Your task to perform on an android device: find snoozed emails in the gmail app Image 0: 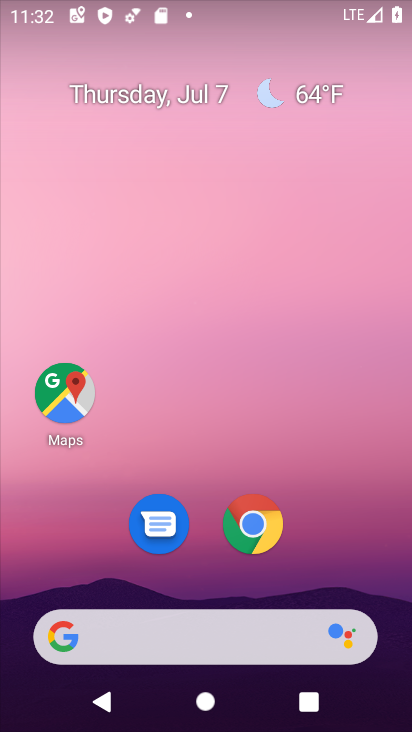
Step 0: drag from (207, 449) to (248, 77)
Your task to perform on an android device: find snoozed emails in the gmail app Image 1: 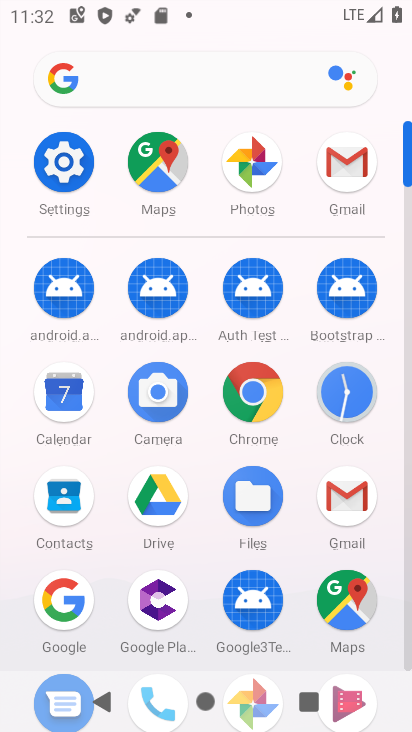
Step 1: click (342, 168)
Your task to perform on an android device: find snoozed emails in the gmail app Image 2: 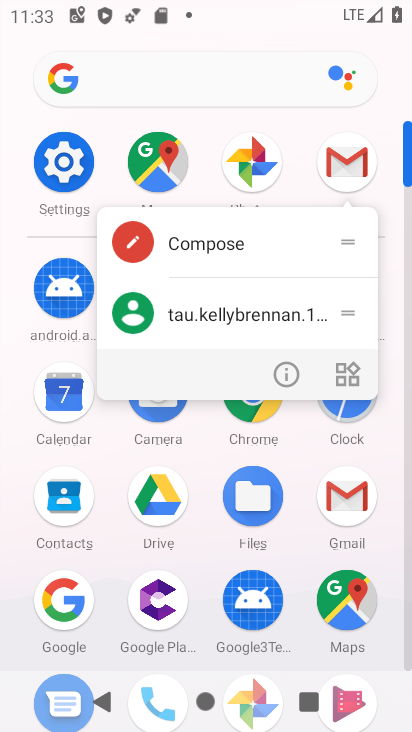
Step 2: click (353, 165)
Your task to perform on an android device: find snoozed emails in the gmail app Image 3: 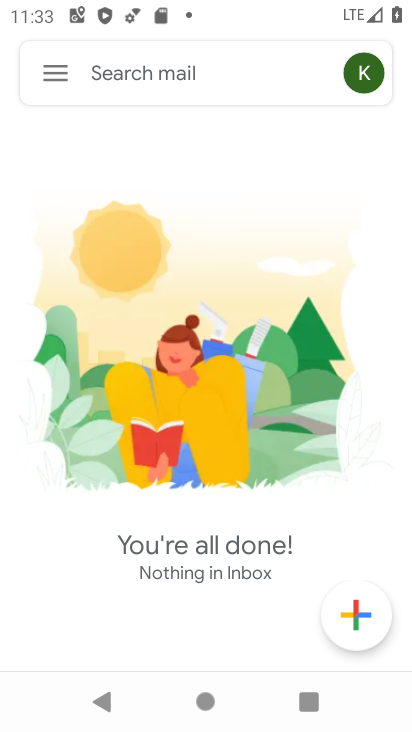
Step 3: click (53, 61)
Your task to perform on an android device: find snoozed emails in the gmail app Image 4: 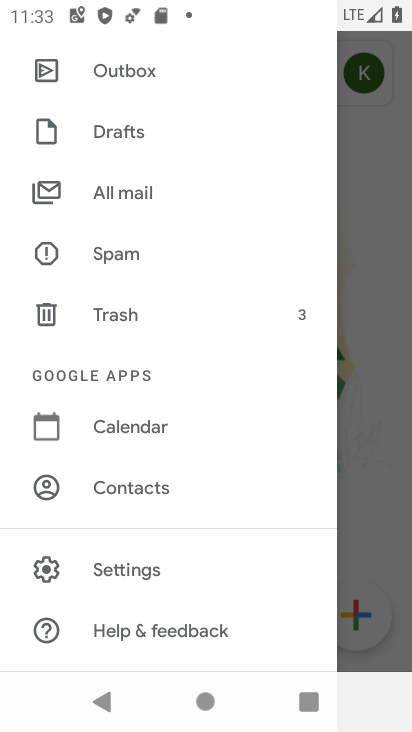
Step 4: drag from (175, 262) to (185, 587)
Your task to perform on an android device: find snoozed emails in the gmail app Image 5: 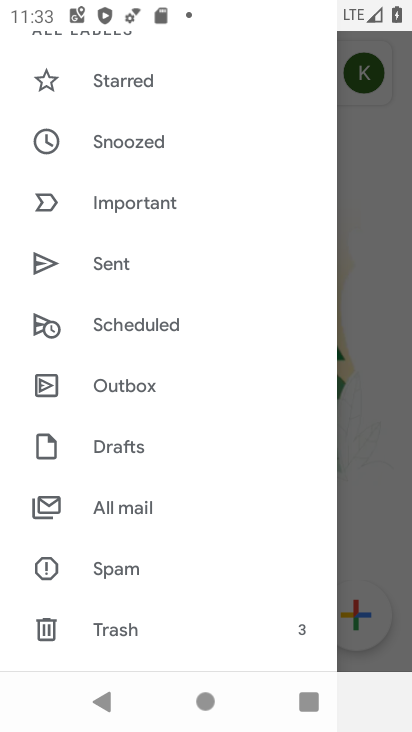
Step 5: click (167, 141)
Your task to perform on an android device: find snoozed emails in the gmail app Image 6: 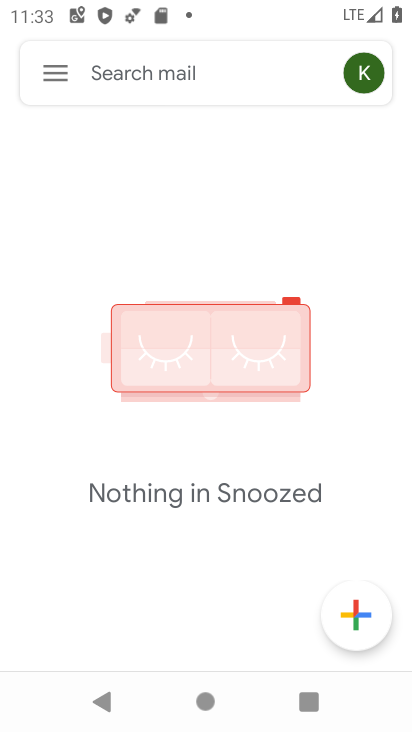
Step 6: task complete